Your task to perform on an android device: Go to Wikipedia Image 0: 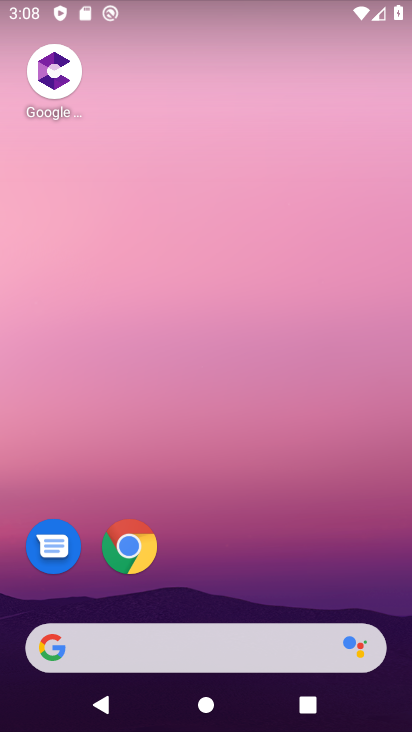
Step 0: press home button
Your task to perform on an android device: Go to Wikipedia Image 1: 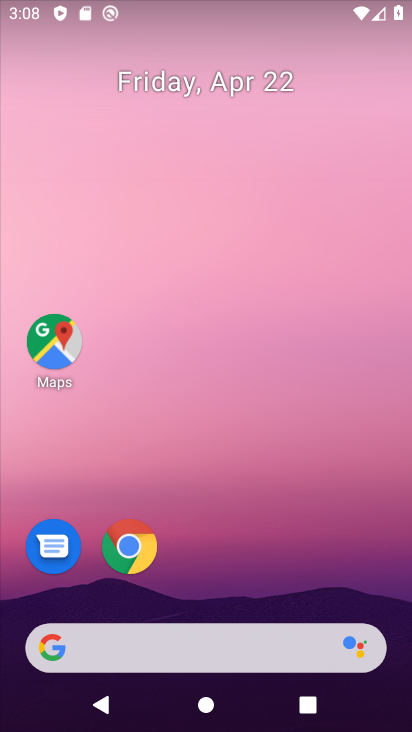
Step 1: click (148, 556)
Your task to perform on an android device: Go to Wikipedia Image 2: 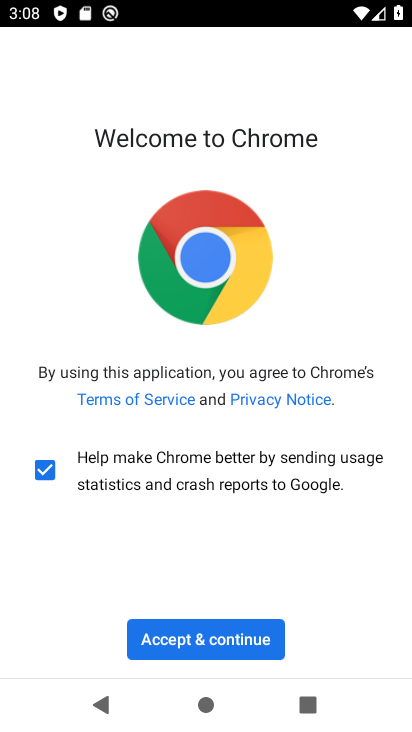
Step 2: click (268, 662)
Your task to perform on an android device: Go to Wikipedia Image 3: 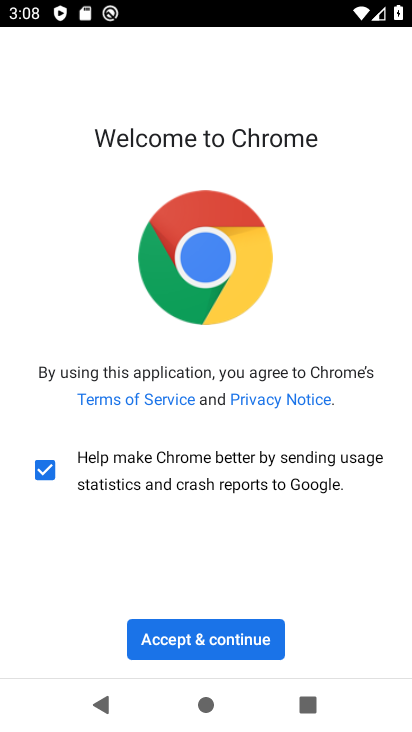
Step 3: click (241, 645)
Your task to perform on an android device: Go to Wikipedia Image 4: 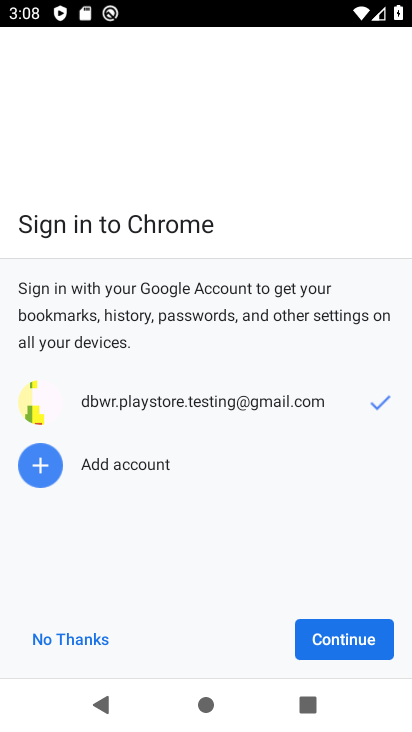
Step 4: click (326, 644)
Your task to perform on an android device: Go to Wikipedia Image 5: 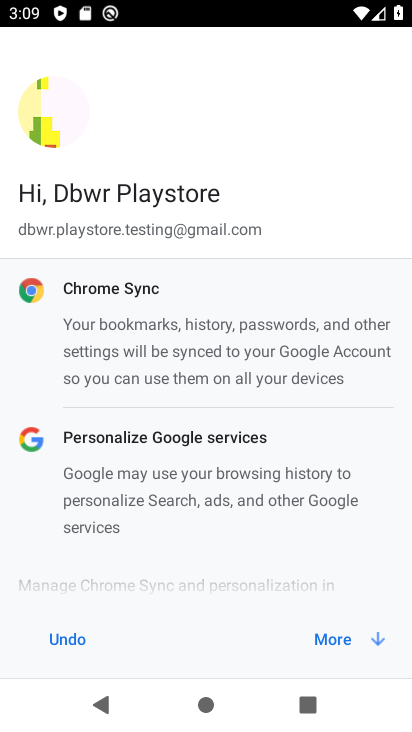
Step 5: click (332, 637)
Your task to perform on an android device: Go to Wikipedia Image 6: 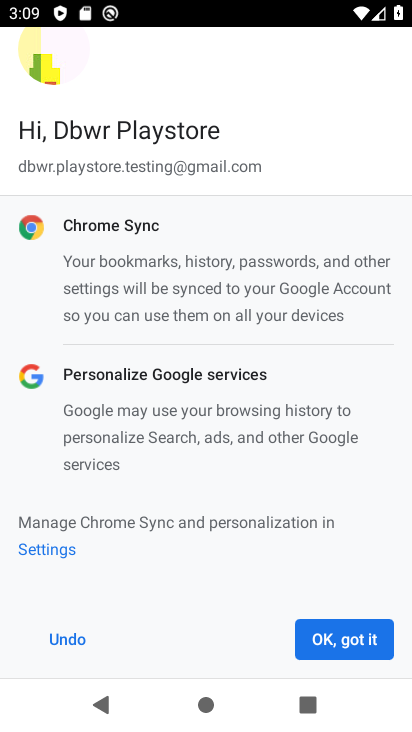
Step 6: click (320, 639)
Your task to perform on an android device: Go to Wikipedia Image 7: 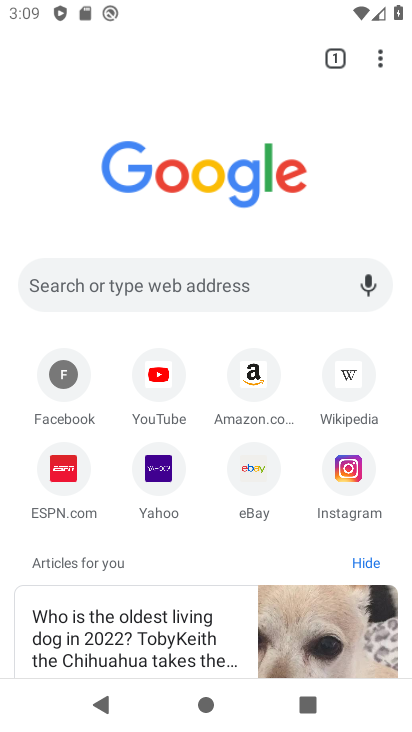
Step 7: click (235, 282)
Your task to perform on an android device: Go to Wikipedia Image 8: 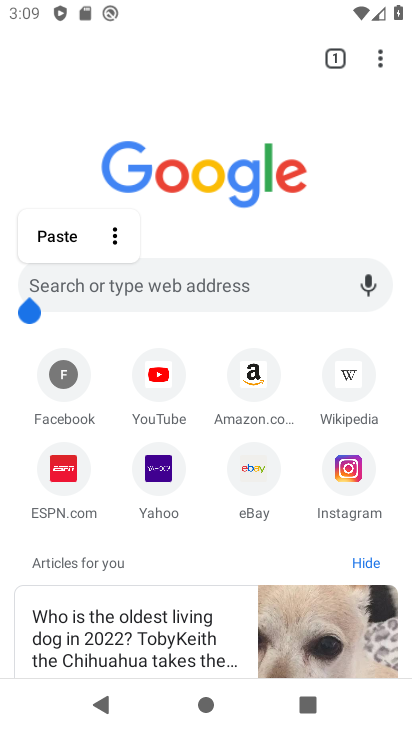
Step 8: click (335, 278)
Your task to perform on an android device: Go to Wikipedia Image 9: 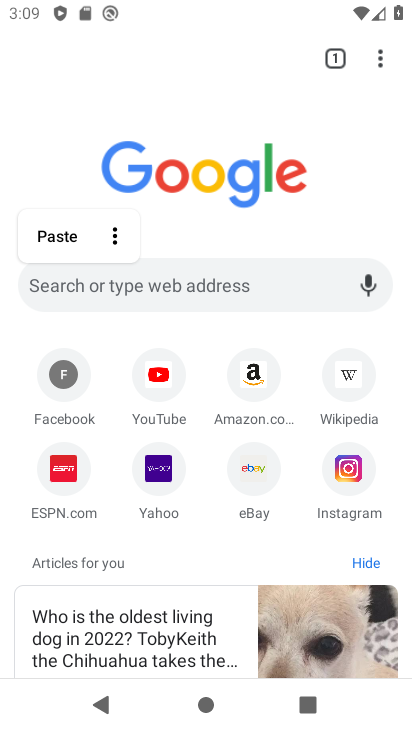
Step 9: click (213, 294)
Your task to perform on an android device: Go to Wikipedia Image 10: 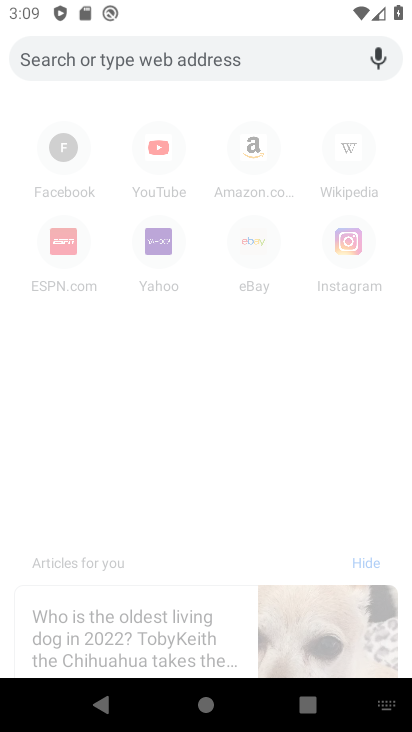
Step 10: type "wikipedia"
Your task to perform on an android device: Go to Wikipedia Image 11: 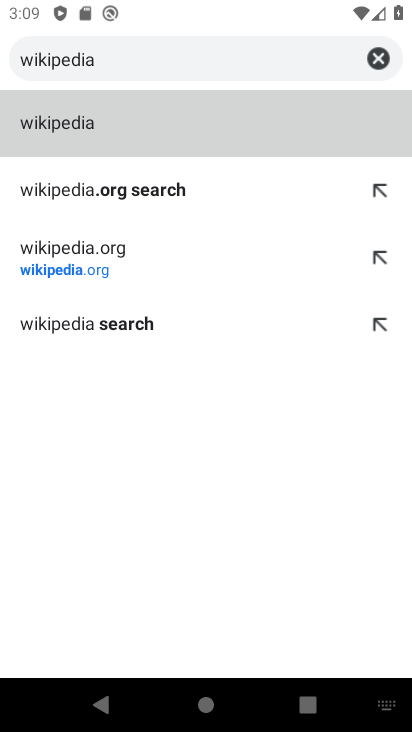
Step 11: click (68, 131)
Your task to perform on an android device: Go to Wikipedia Image 12: 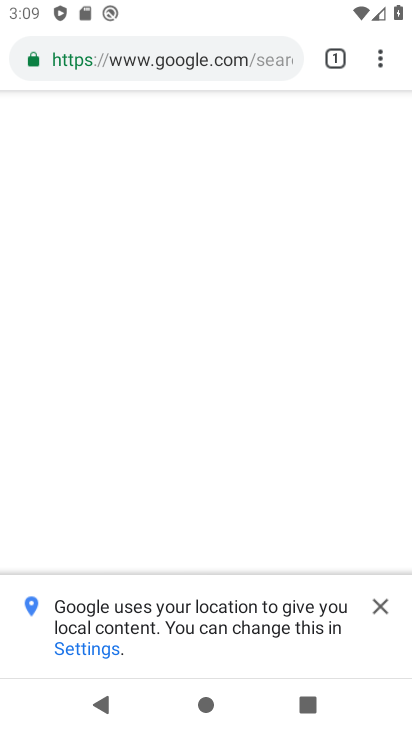
Step 12: click (378, 607)
Your task to perform on an android device: Go to Wikipedia Image 13: 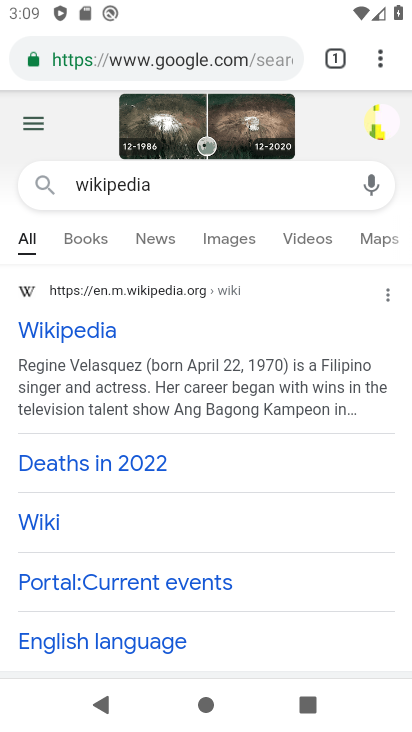
Step 13: click (77, 323)
Your task to perform on an android device: Go to Wikipedia Image 14: 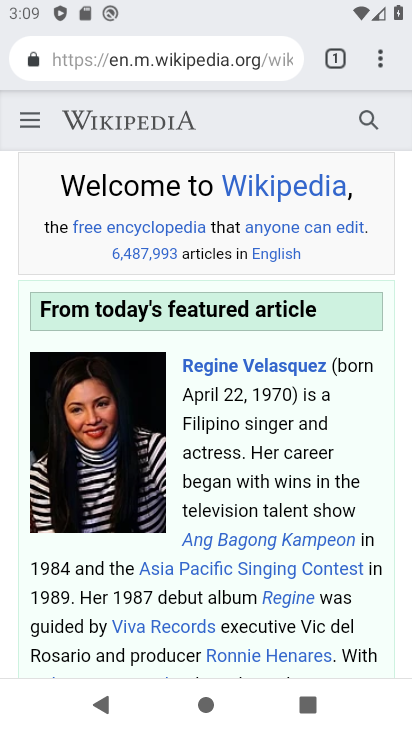
Step 14: task complete